Your task to perform on an android device: Go to network settings Image 0: 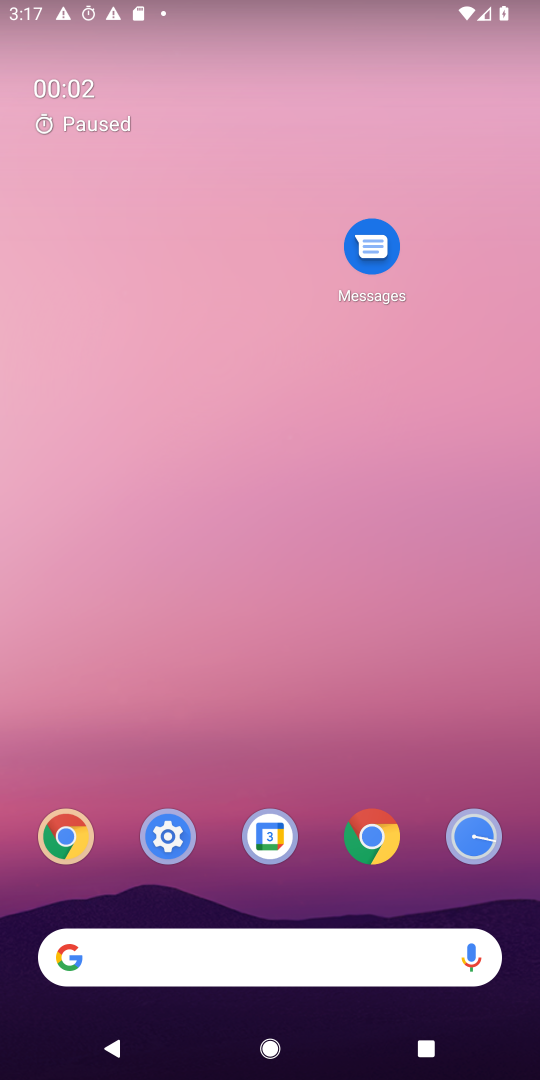
Step 0: click (169, 840)
Your task to perform on an android device: Go to network settings Image 1: 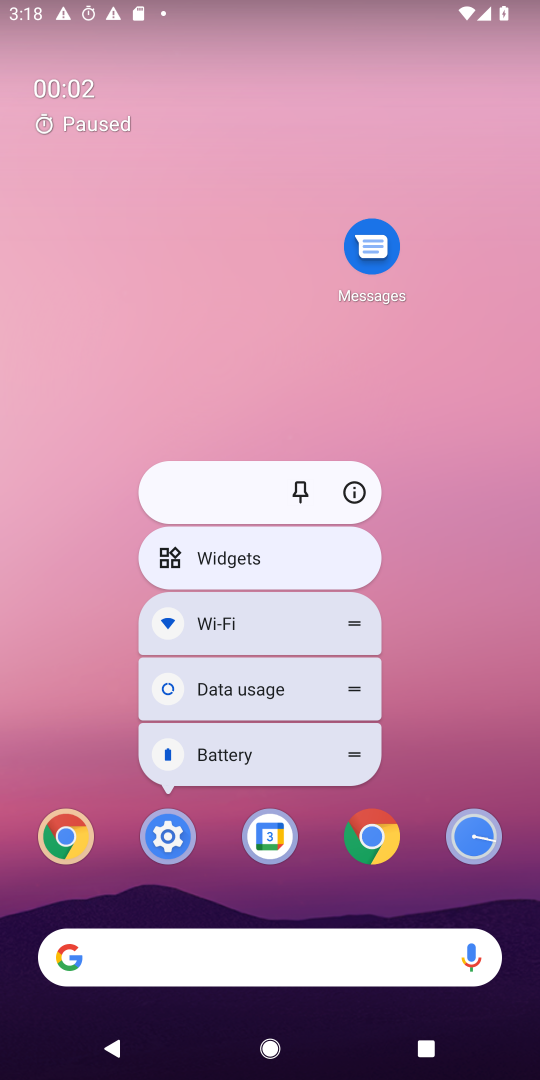
Step 1: click (160, 819)
Your task to perform on an android device: Go to network settings Image 2: 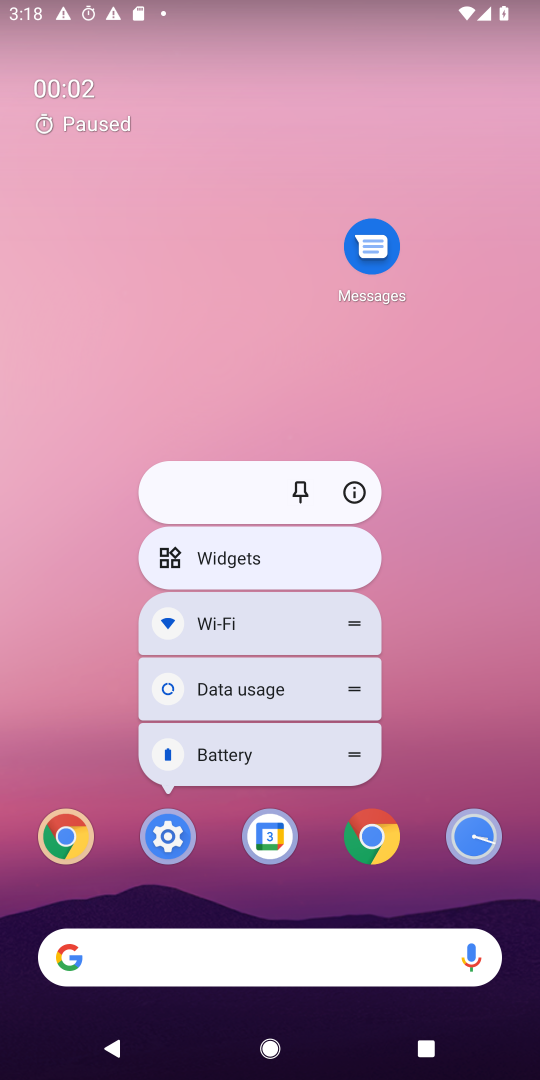
Step 2: click (157, 834)
Your task to perform on an android device: Go to network settings Image 3: 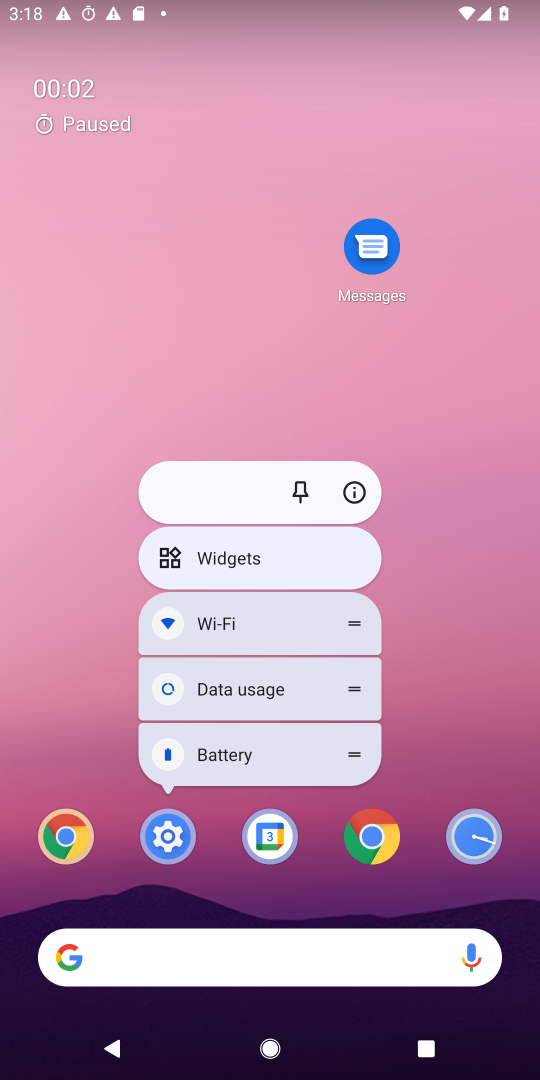
Step 3: click (151, 840)
Your task to perform on an android device: Go to network settings Image 4: 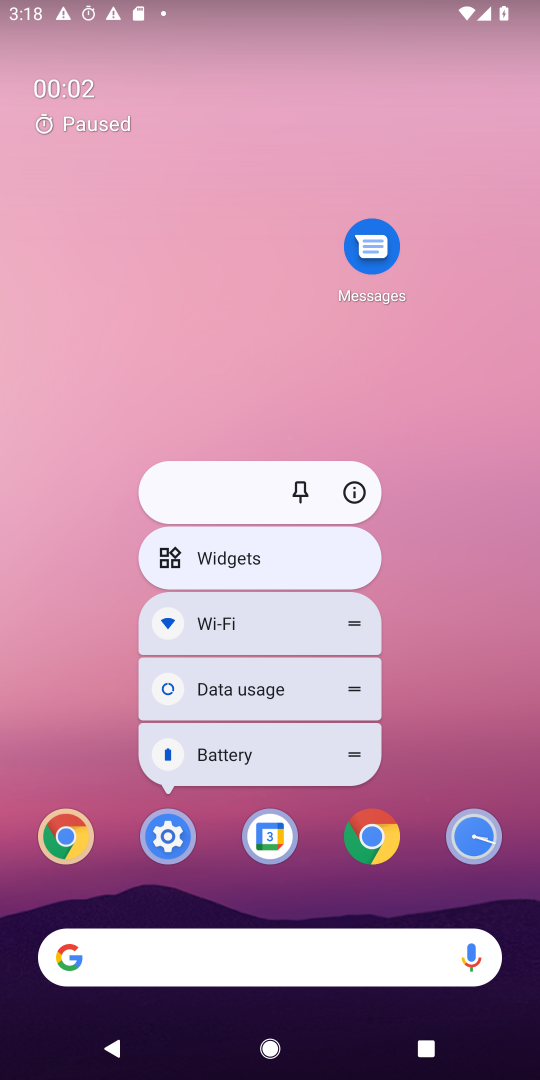
Step 4: click (151, 840)
Your task to perform on an android device: Go to network settings Image 5: 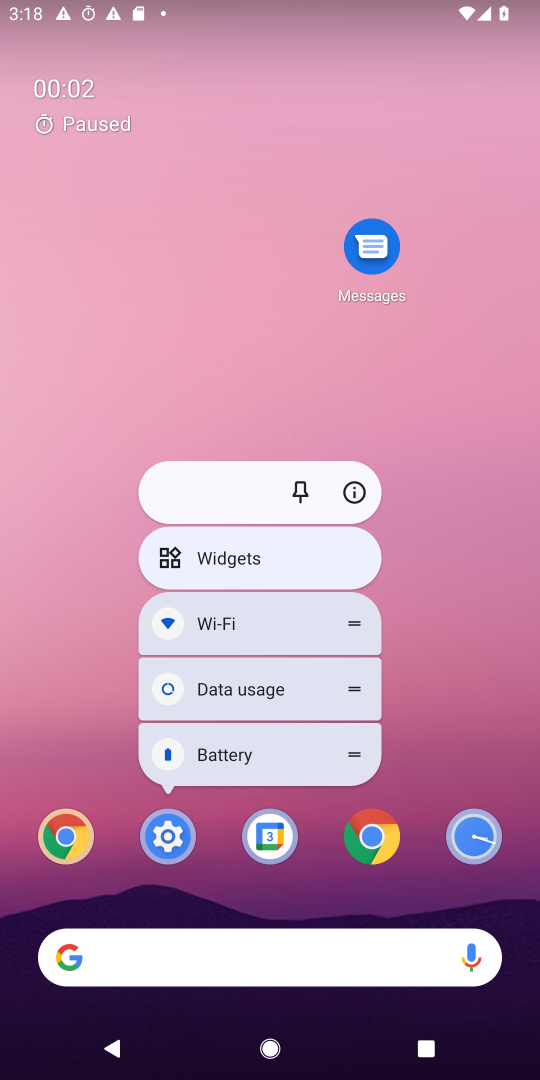
Step 5: click (178, 853)
Your task to perform on an android device: Go to network settings Image 6: 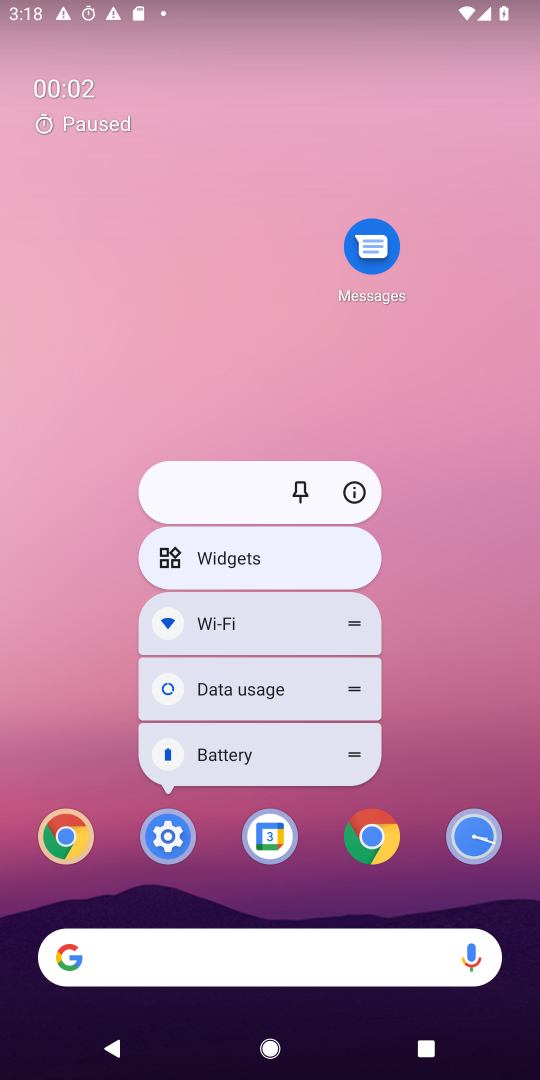
Step 6: task complete